Your task to perform on an android device: open app "DoorDash - Food Delivery" Image 0: 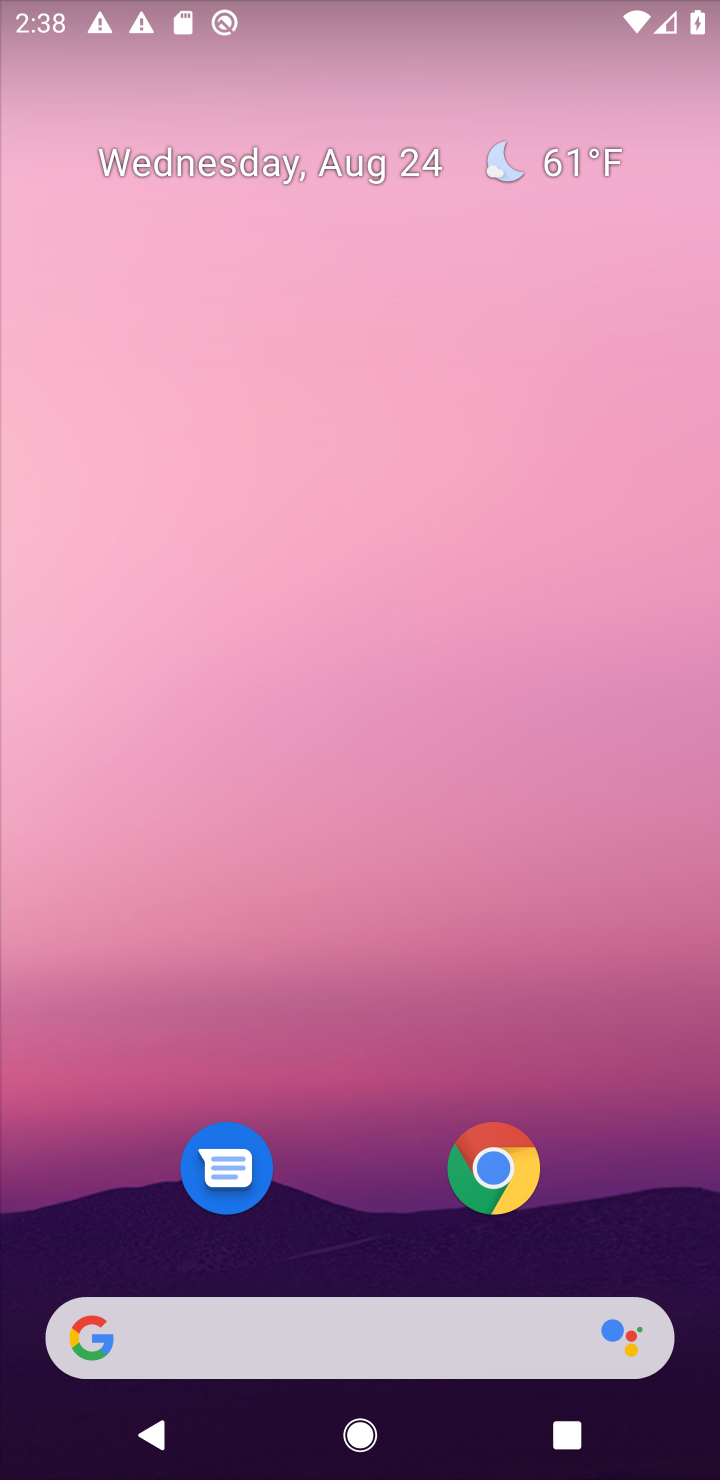
Step 0: drag from (656, 1161) to (557, 184)
Your task to perform on an android device: open app "DoorDash - Food Delivery" Image 1: 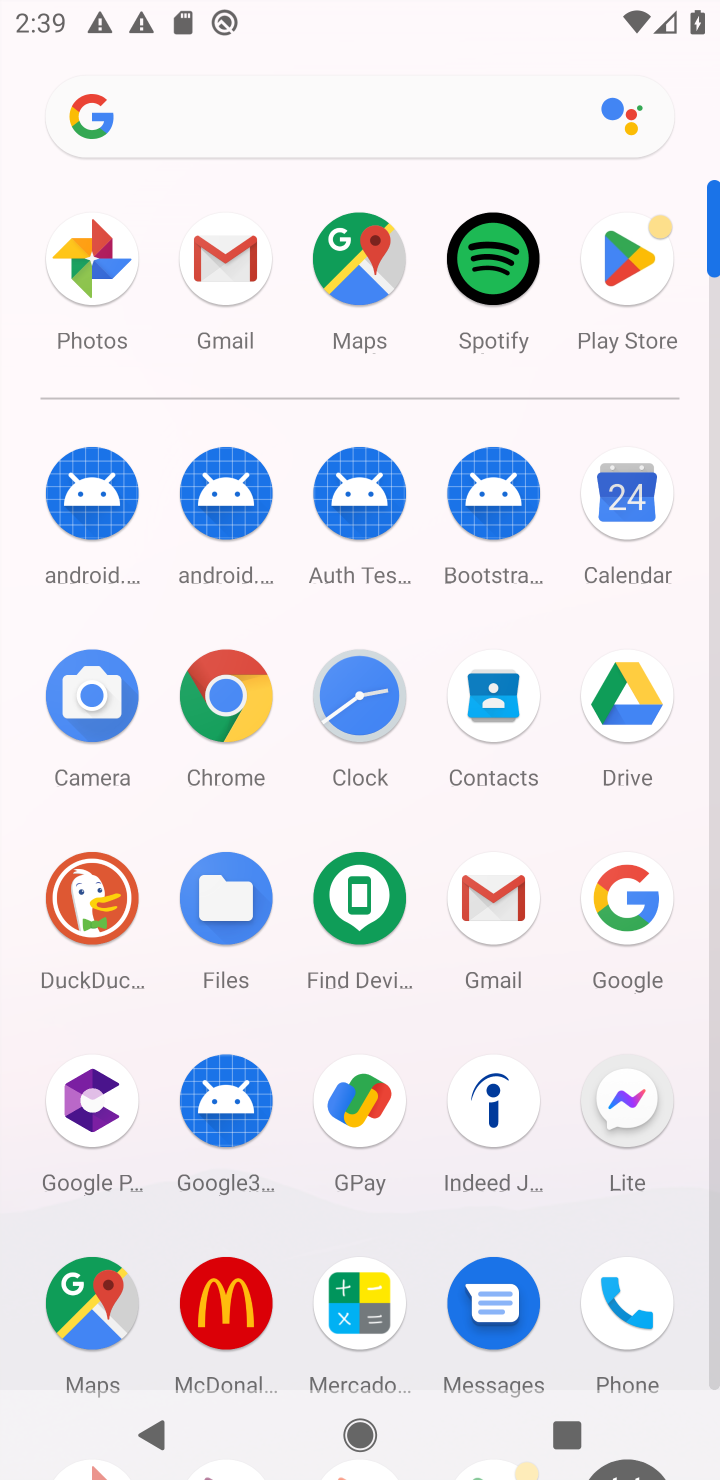
Step 1: click (712, 1310)
Your task to perform on an android device: open app "DoorDash - Food Delivery" Image 2: 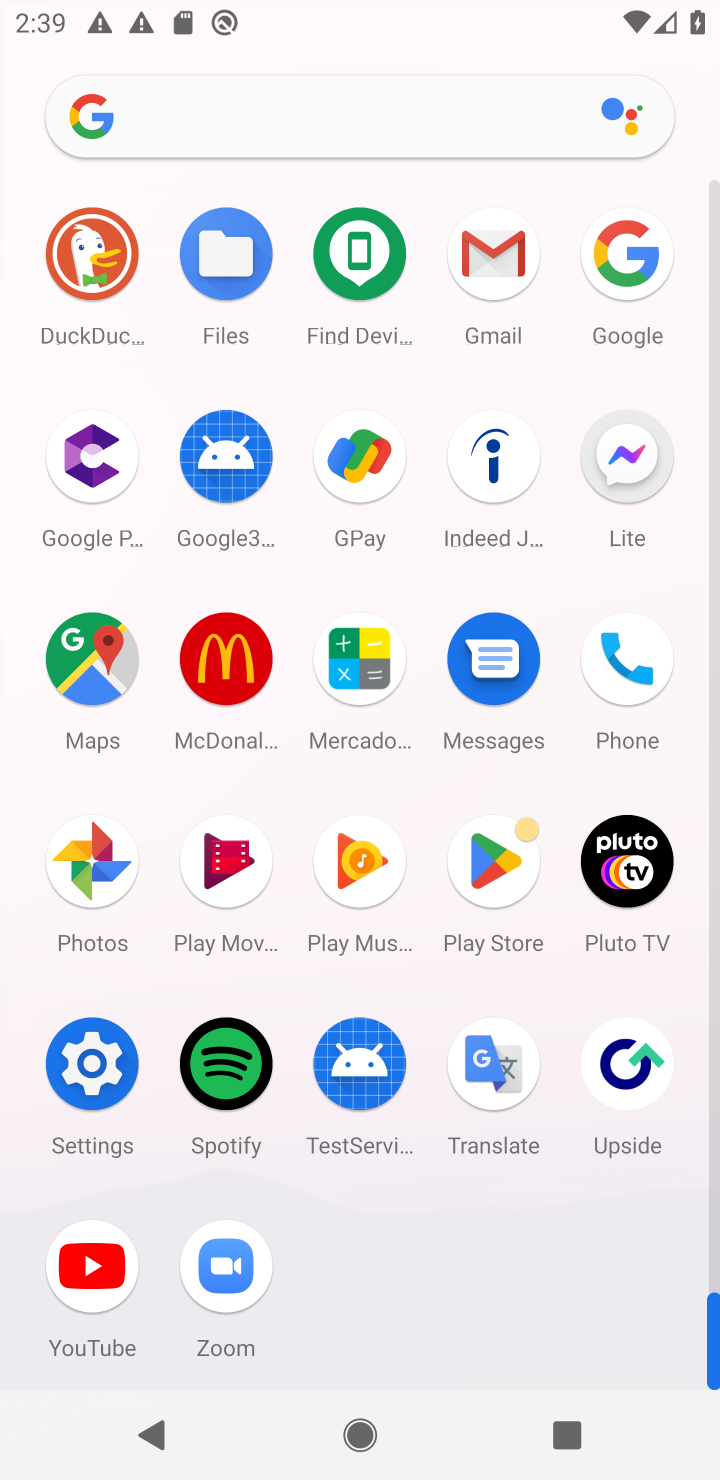
Step 2: click (497, 864)
Your task to perform on an android device: open app "DoorDash - Food Delivery" Image 3: 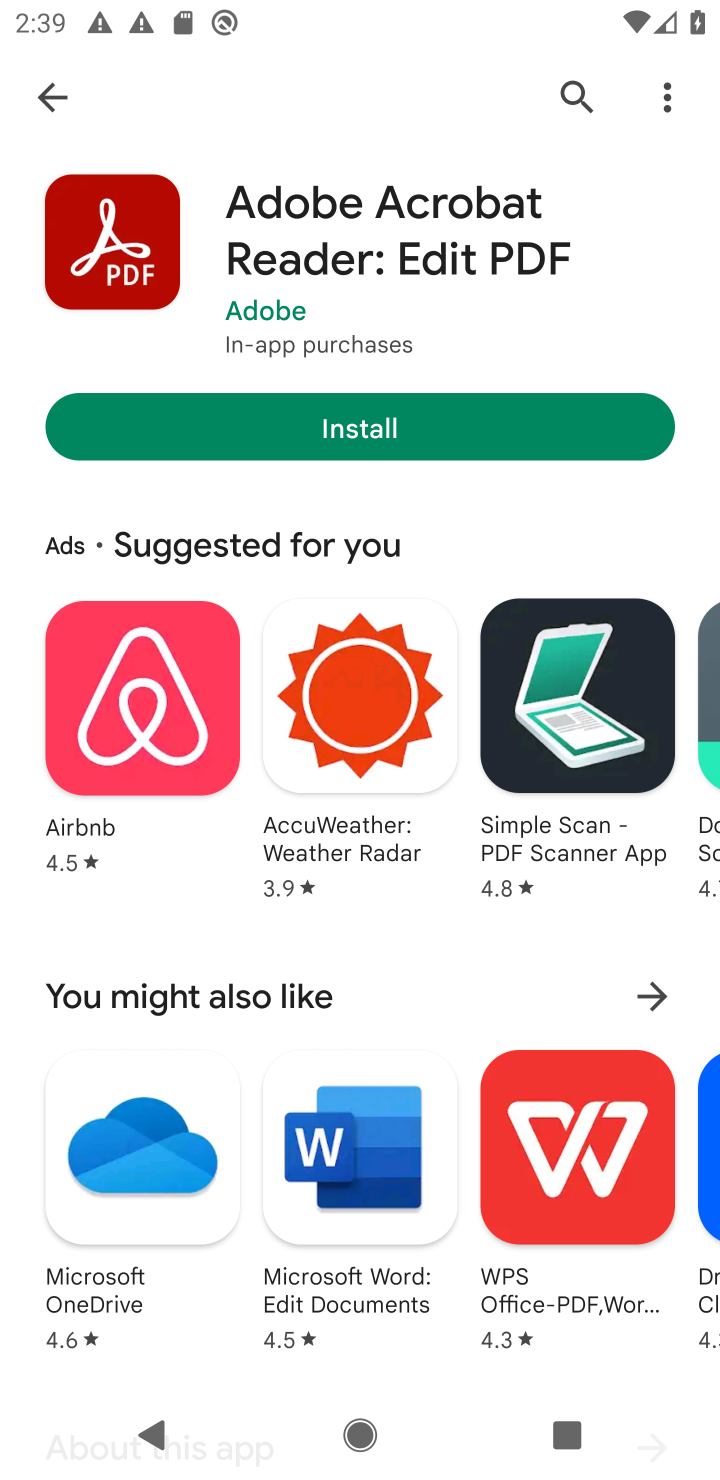
Step 3: task complete